Your task to perform on an android device: Play the last video I watched on Youtube Image 0: 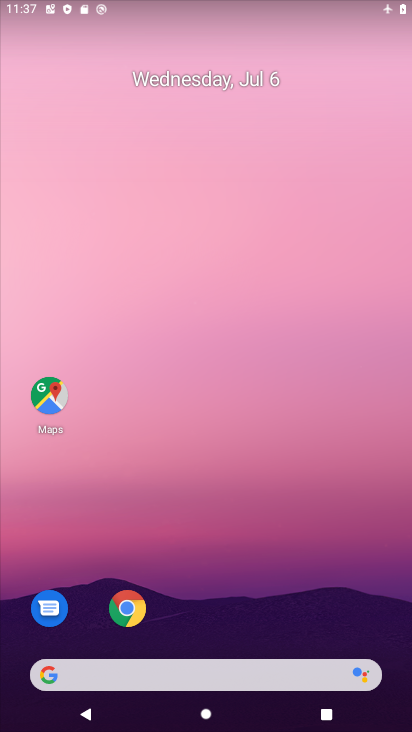
Step 0: drag from (167, 663) to (224, 150)
Your task to perform on an android device: Play the last video I watched on Youtube Image 1: 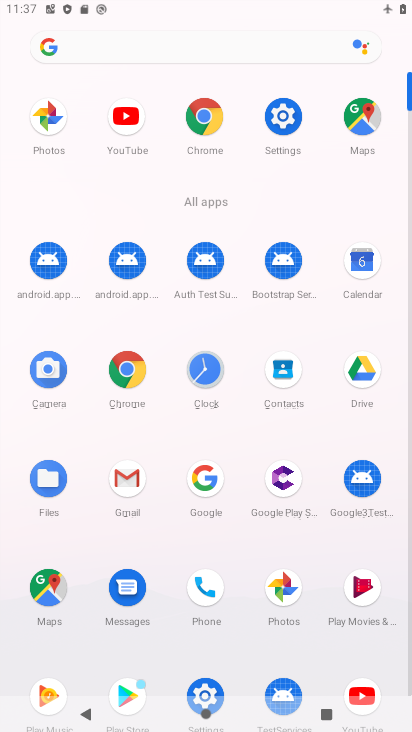
Step 1: click (359, 694)
Your task to perform on an android device: Play the last video I watched on Youtube Image 2: 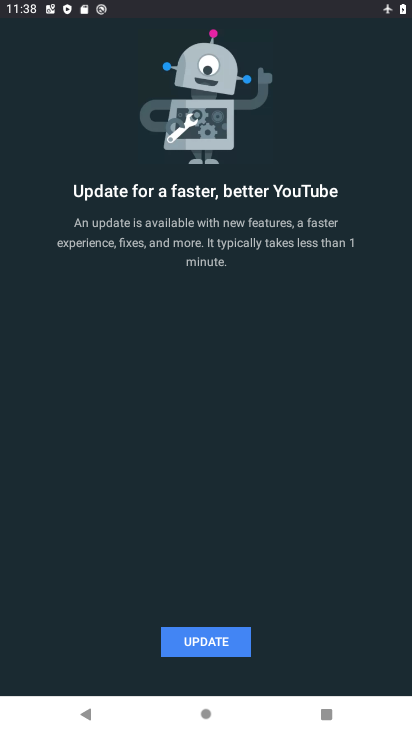
Step 2: click (186, 642)
Your task to perform on an android device: Play the last video I watched on Youtube Image 3: 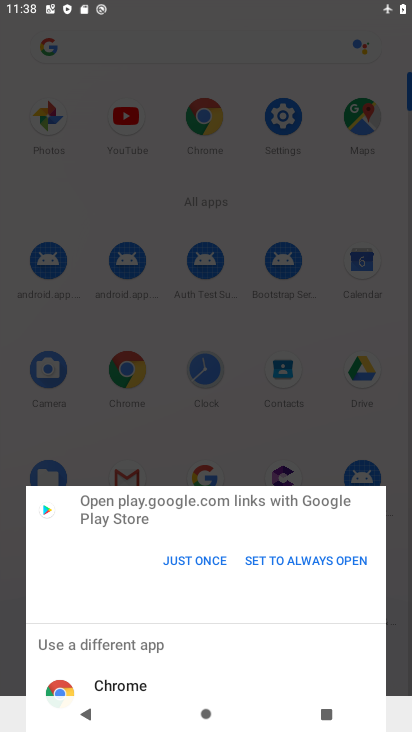
Step 3: click (216, 562)
Your task to perform on an android device: Play the last video I watched on Youtube Image 4: 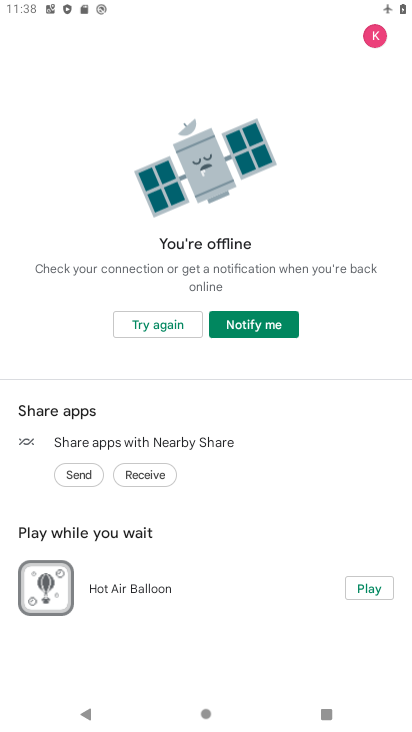
Step 4: click (166, 319)
Your task to perform on an android device: Play the last video I watched on Youtube Image 5: 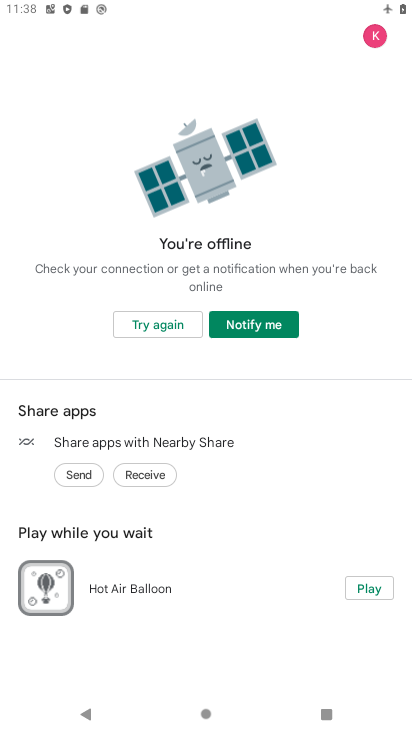
Step 5: task complete